Your task to perform on an android device: Open Youtube and go to the subscriptions tab Image 0: 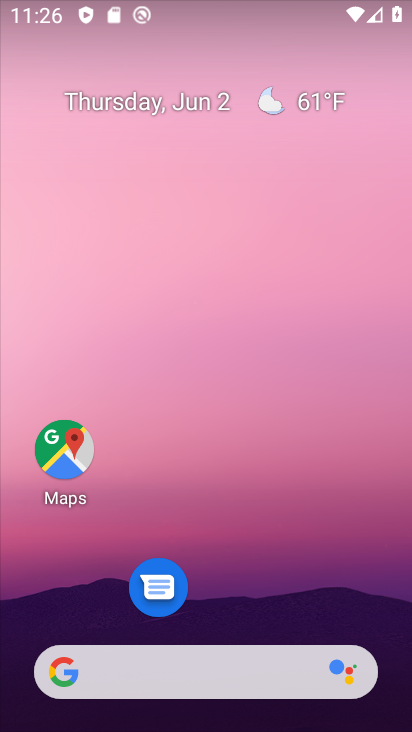
Step 0: drag from (194, 623) to (386, 580)
Your task to perform on an android device: Open Youtube and go to the subscriptions tab Image 1: 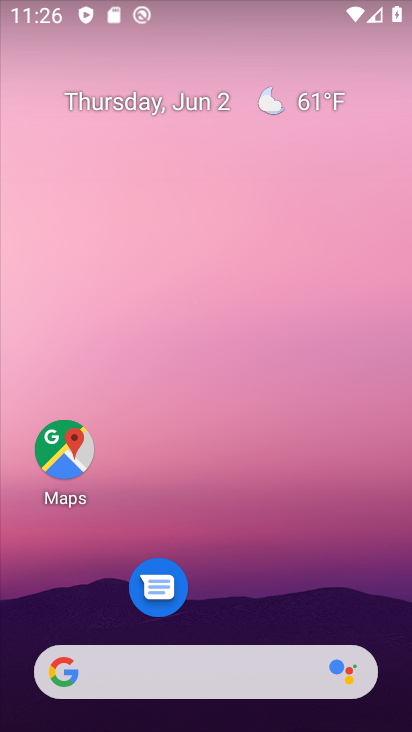
Step 1: drag from (244, 631) to (233, 7)
Your task to perform on an android device: Open Youtube and go to the subscriptions tab Image 2: 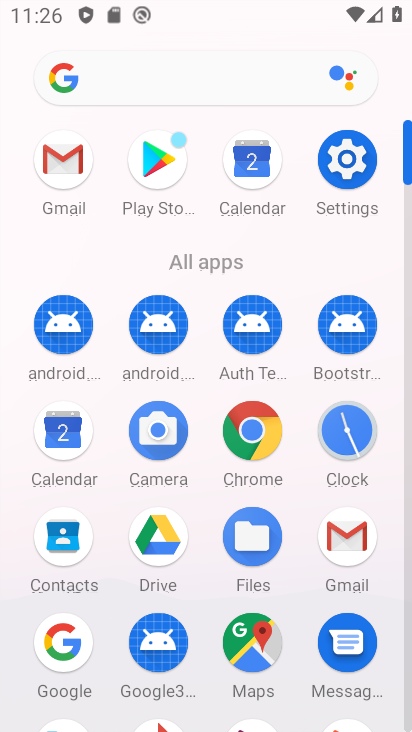
Step 2: drag from (207, 533) to (223, 19)
Your task to perform on an android device: Open Youtube and go to the subscriptions tab Image 3: 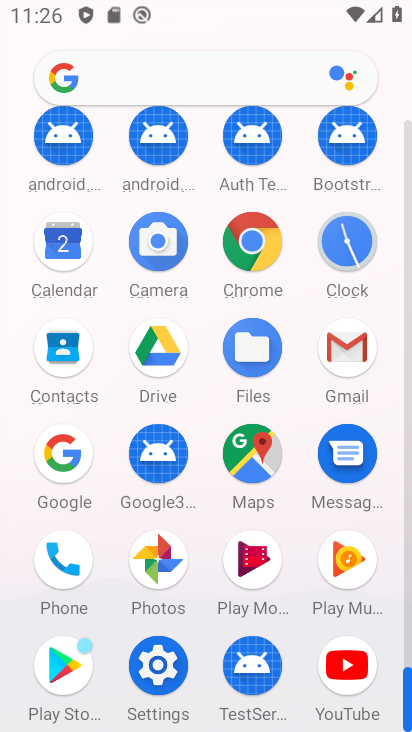
Step 3: click (349, 647)
Your task to perform on an android device: Open Youtube and go to the subscriptions tab Image 4: 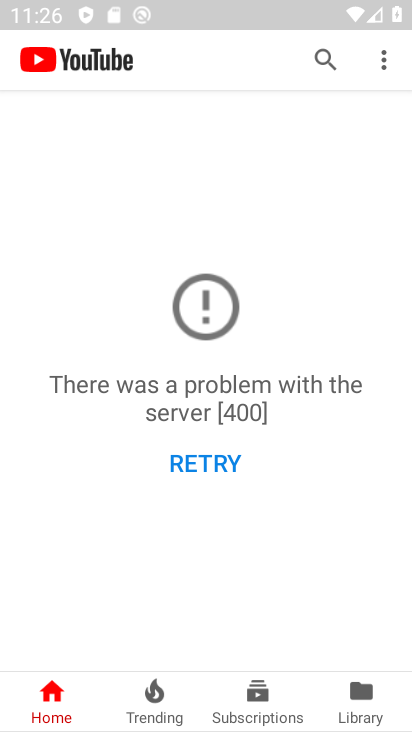
Step 4: click (287, 699)
Your task to perform on an android device: Open Youtube and go to the subscriptions tab Image 5: 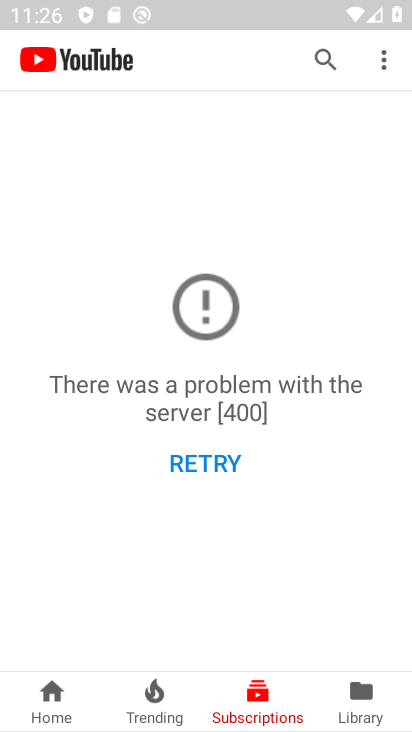
Step 5: task complete